Your task to perform on an android device: star an email in the gmail app Image 0: 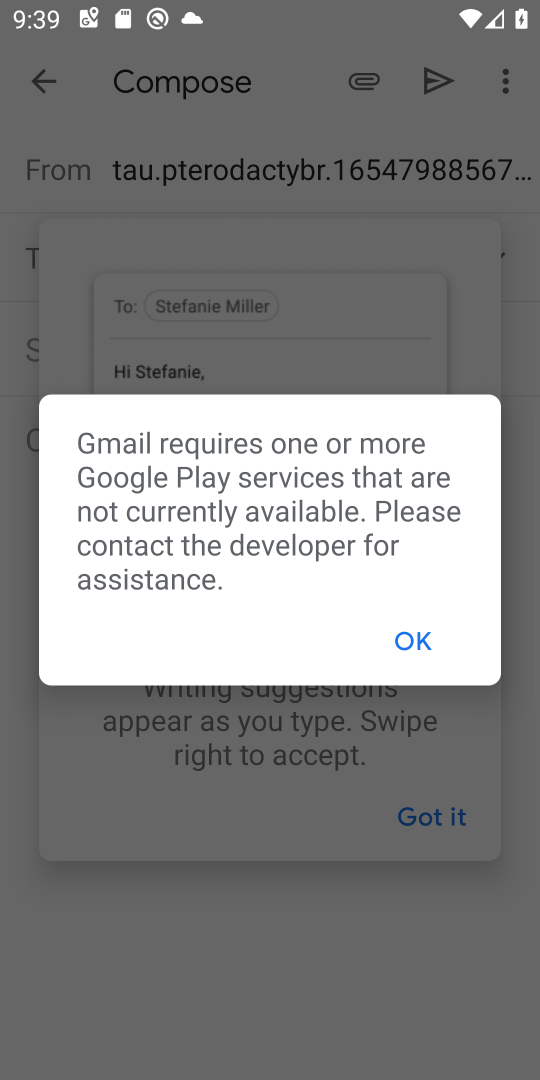
Step 0: press home button
Your task to perform on an android device: star an email in the gmail app Image 1: 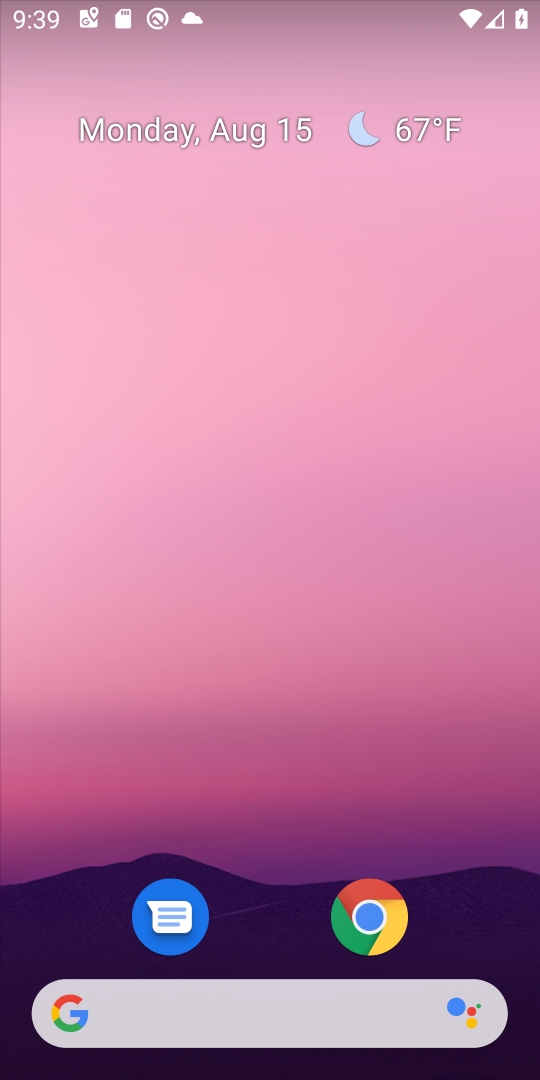
Step 1: drag from (274, 857) to (358, 0)
Your task to perform on an android device: star an email in the gmail app Image 2: 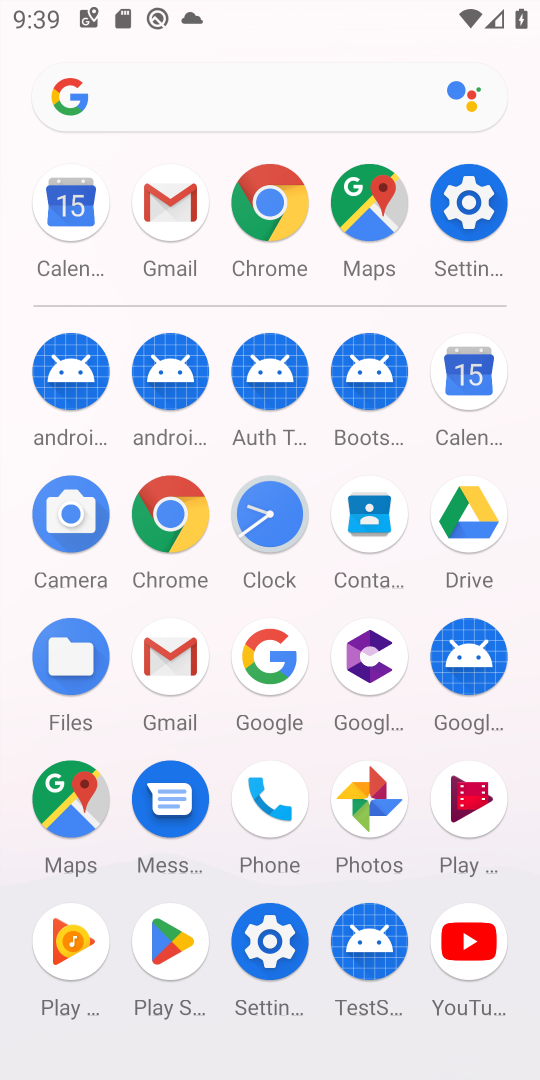
Step 2: click (171, 205)
Your task to perform on an android device: star an email in the gmail app Image 3: 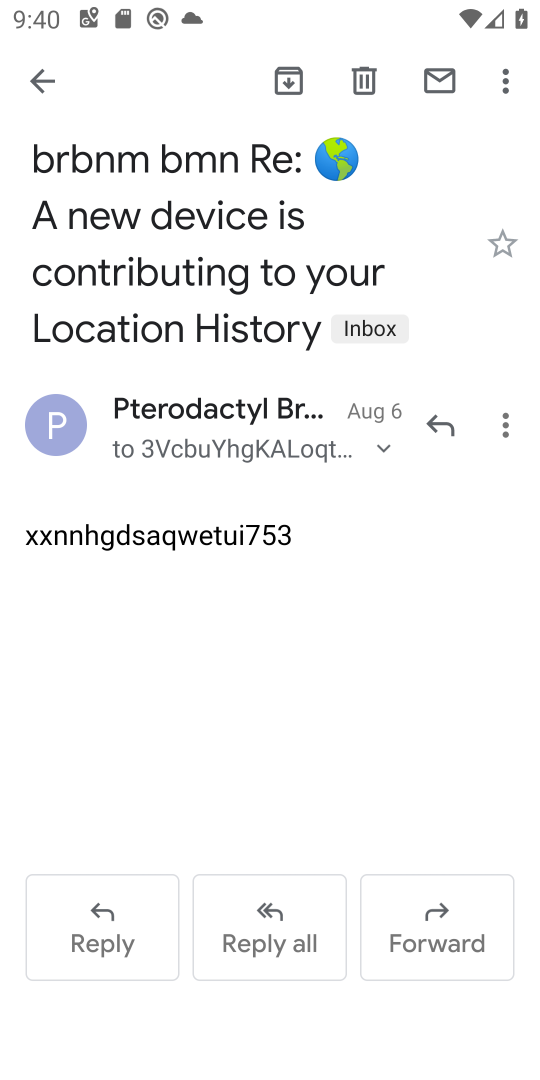
Step 3: click (46, 77)
Your task to perform on an android device: star an email in the gmail app Image 4: 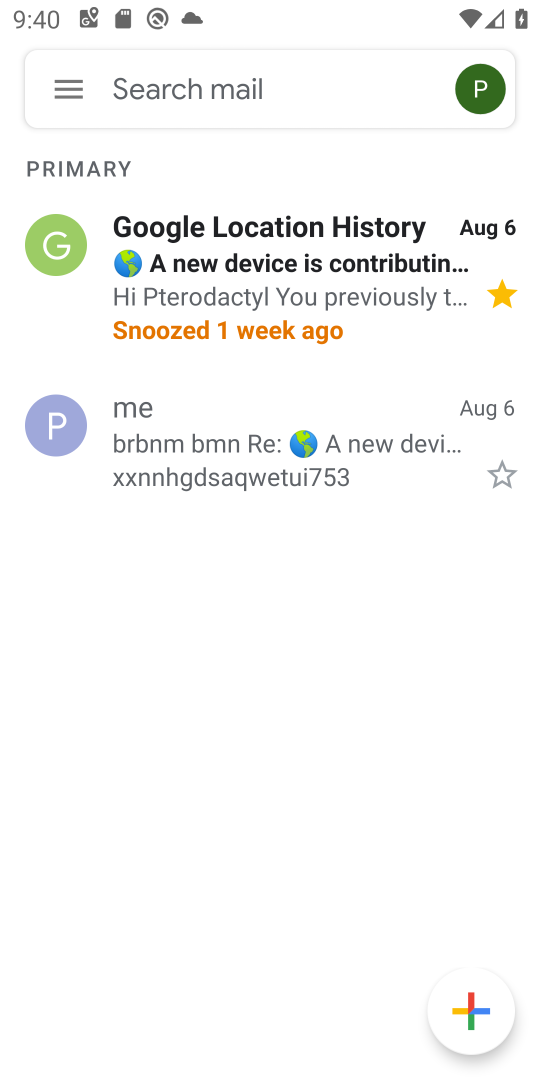
Step 4: click (503, 468)
Your task to perform on an android device: star an email in the gmail app Image 5: 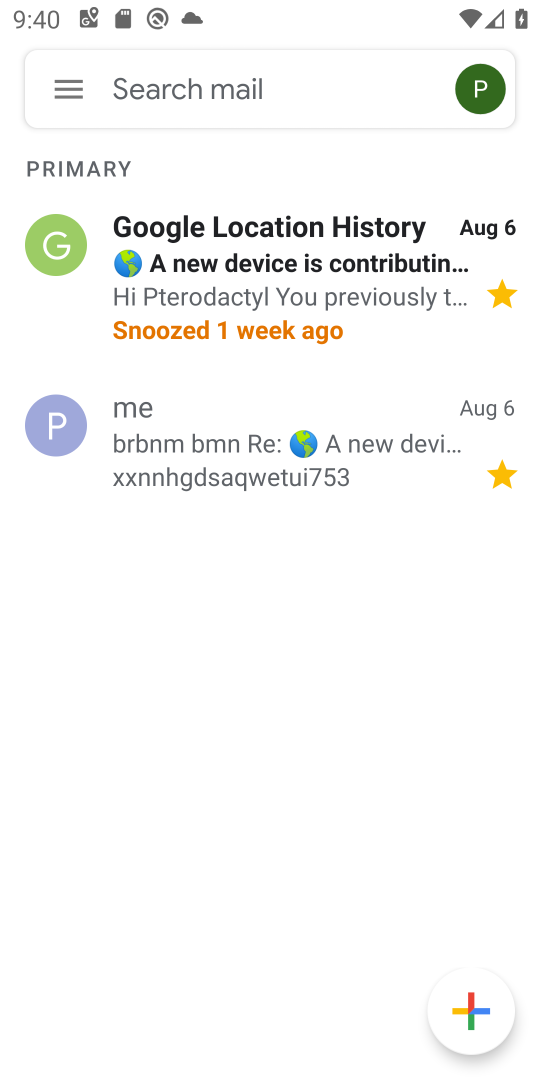
Step 5: task complete